Your task to perform on an android device: What's the weather going to be this weekend? Image 0: 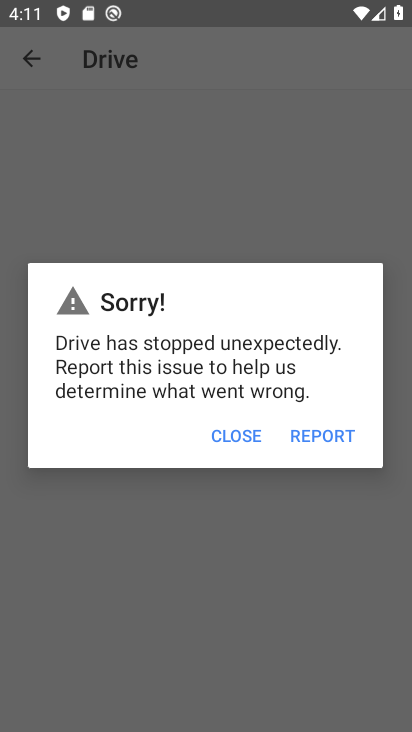
Step 0: press home button
Your task to perform on an android device: What's the weather going to be this weekend? Image 1: 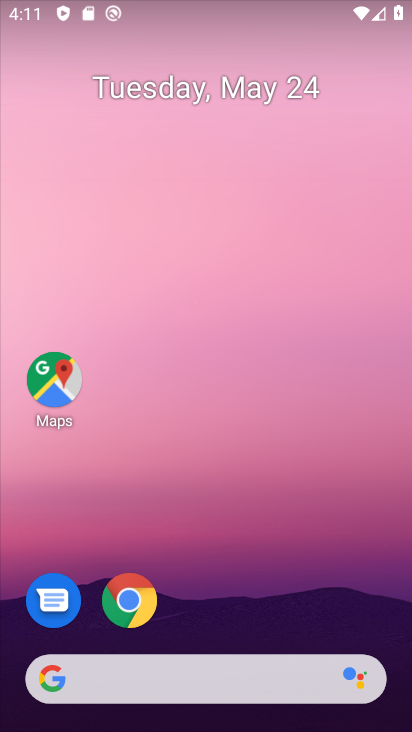
Step 1: click (98, 682)
Your task to perform on an android device: What's the weather going to be this weekend? Image 2: 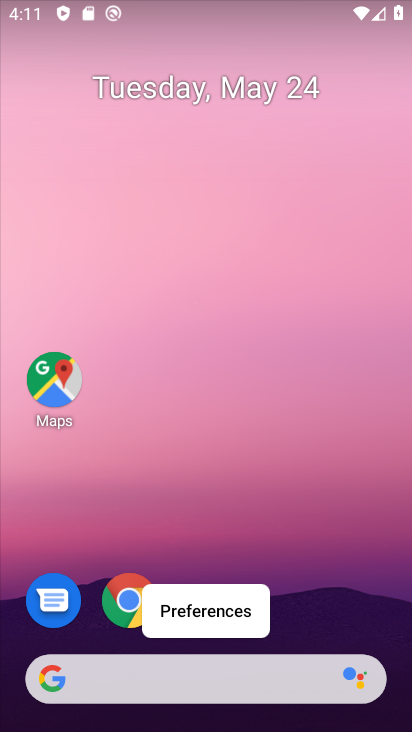
Step 2: click (98, 682)
Your task to perform on an android device: What's the weather going to be this weekend? Image 3: 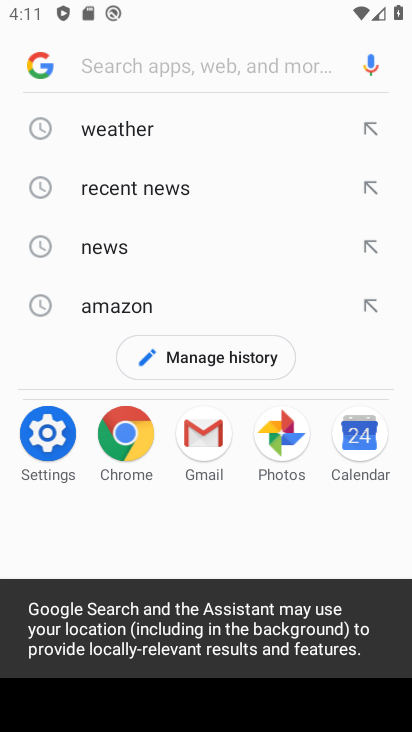
Step 3: click (110, 132)
Your task to perform on an android device: What's the weather going to be this weekend? Image 4: 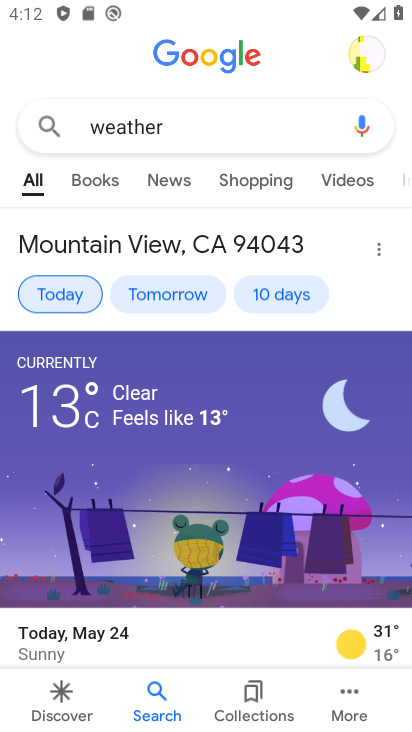
Step 4: click (276, 303)
Your task to perform on an android device: What's the weather going to be this weekend? Image 5: 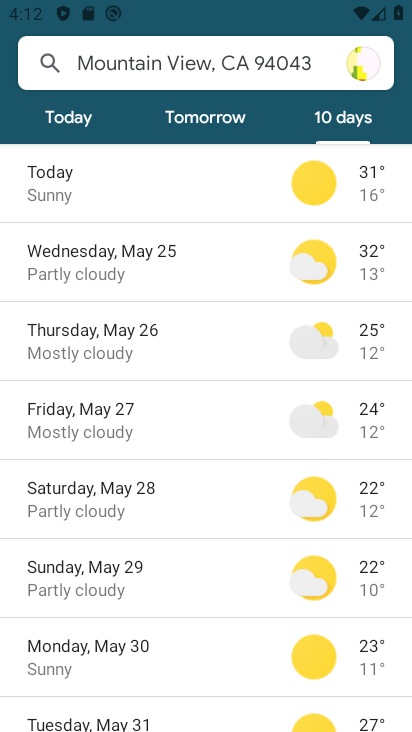
Step 5: task complete